Your task to perform on an android device: turn off airplane mode Image 0: 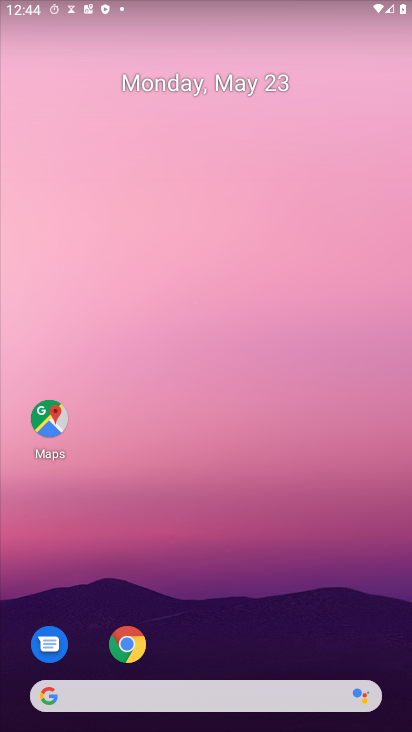
Step 0: drag from (226, 622) to (301, 13)
Your task to perform on an android device: turn off airplane mode Image 1: 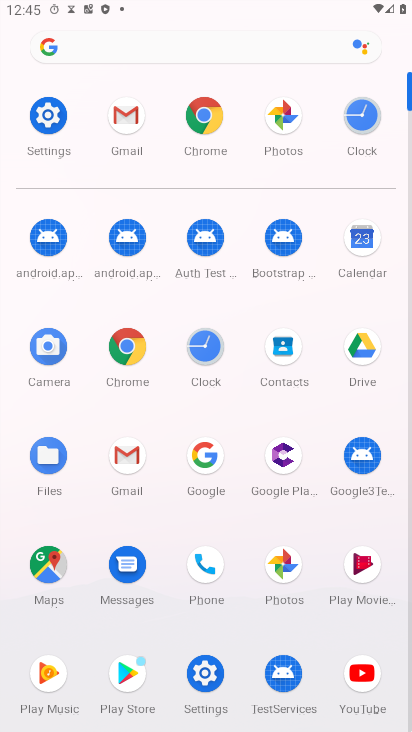
Step 1: click (48, 111)
Your task to perform on an android device: turn off airplane mode Image 2: 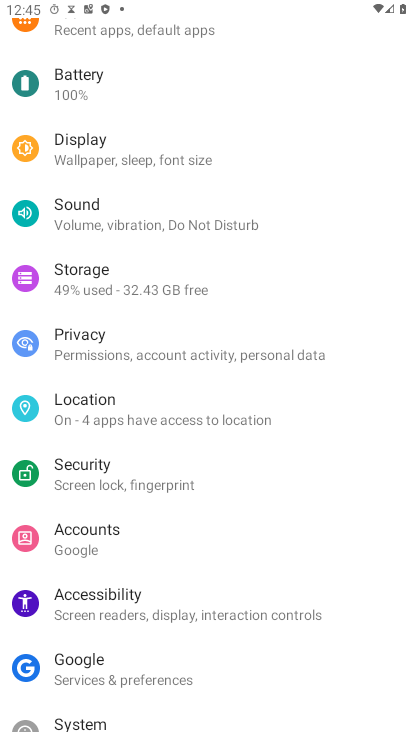
Step 2: drag from (256, 119) to (268, 480)
Your task to perform on an android device: turn off airplane mode Image 3: 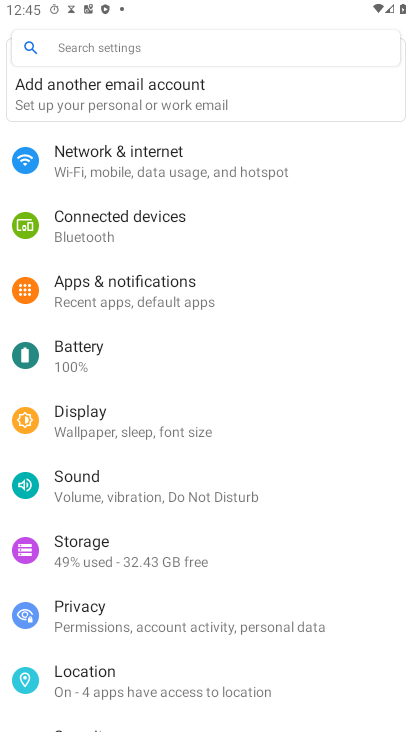
Step 3: click (201, 161)
Your task to perform on an android device: turn off airplane mode Image 4: 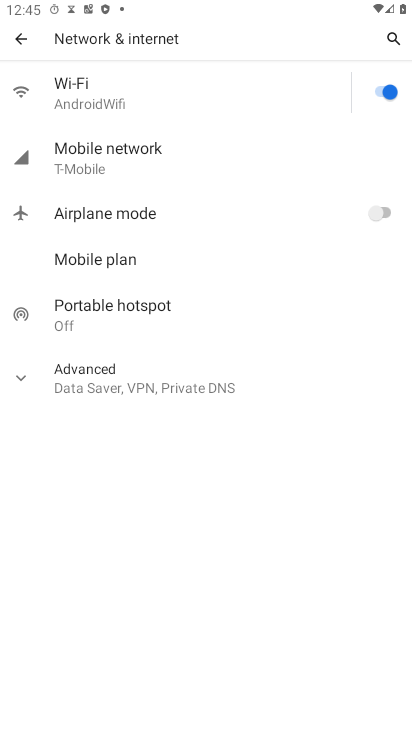
Step 4: task complete